Your task to perform on an android device: manage bookmarks in the chrome app Image 0: 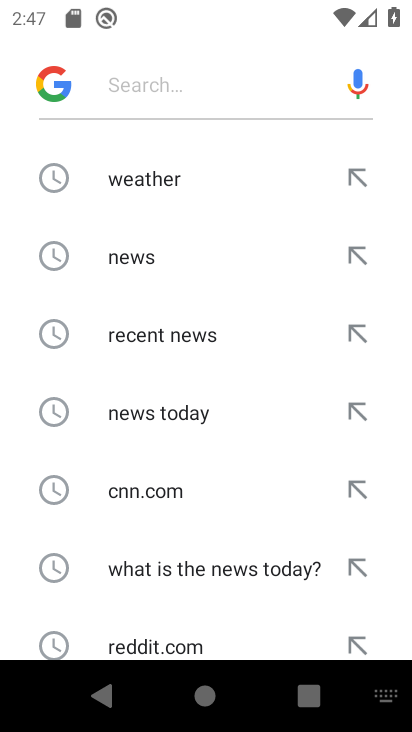
Step 0: press home button
Your task to perform on an android device: manage bookmarks in the chrome app Image 1: 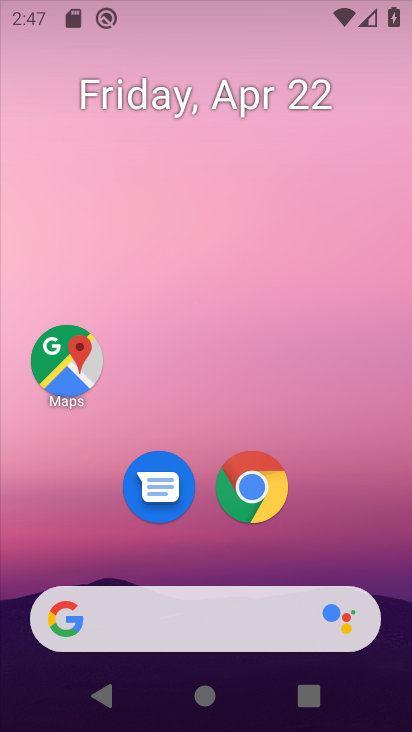
Step 1: click (278, 495)
Your task to perform on an android device: manage bookmarks in the chrome app Image 2: 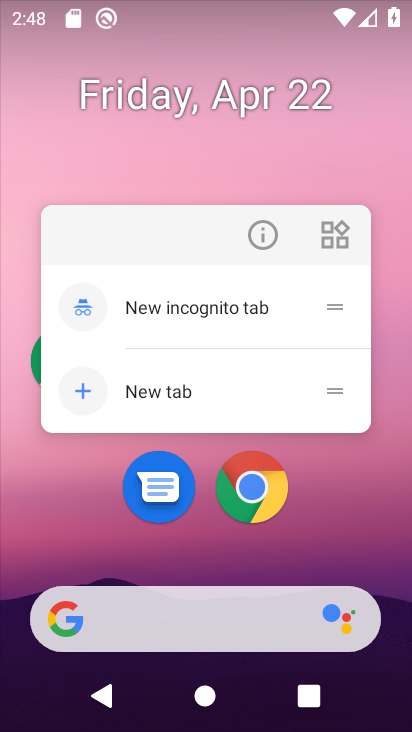
Step 2: click (268, 238)
Your task to perform on an android device: manage bookmarks in the chrome app Image 3: 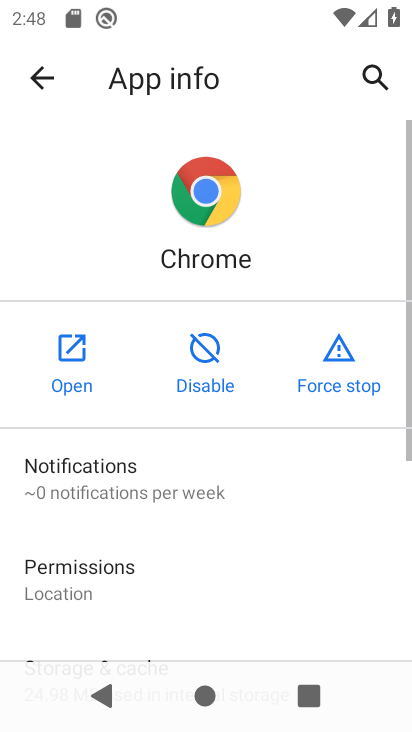
Step 3: click (68, 364)
Your task to perform on an android device: manage bookmarks in the chrome app Image 4: 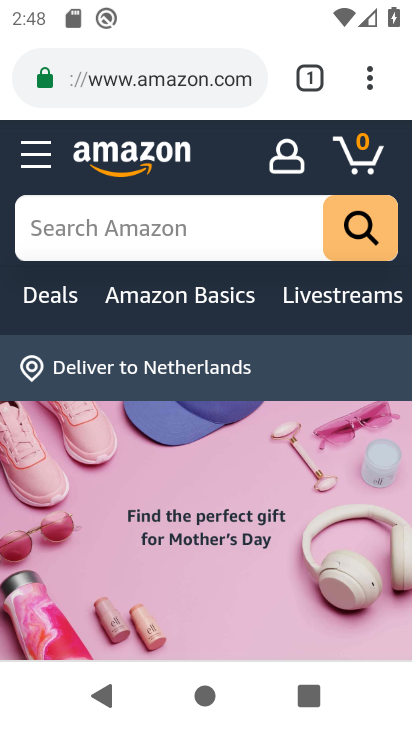
Step 4: click (365, 81)
Your task to perform on an android device: manage bookmarks in the chrome app Image 5: 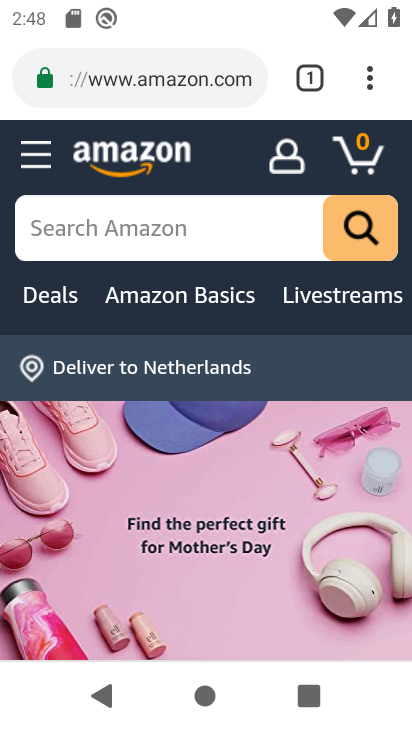
Step 5: click (371, 87)
Your task to perform on an android device: manage bookmarks in the chrome app Image 6: 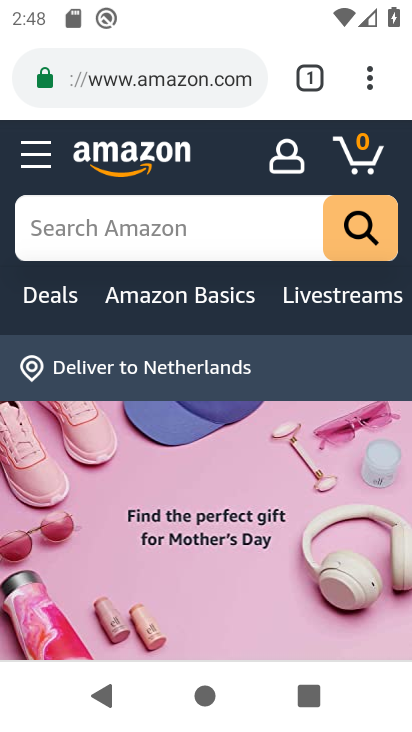
Step 6: click (372, 80)
Your task to perform on an android device: manage bookmarks in the chrome app Image 7: 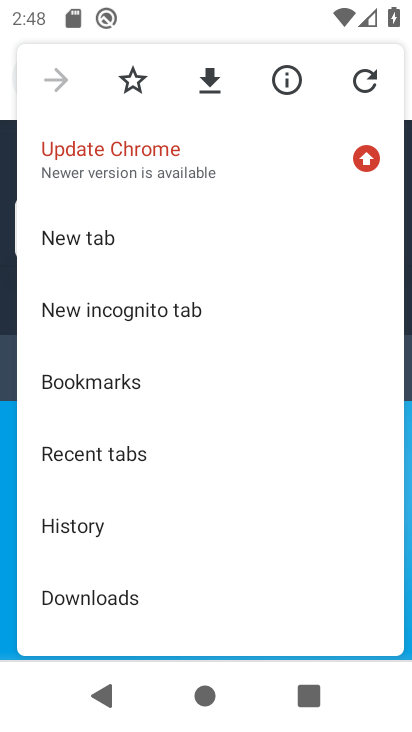
Step 7: click (124, 396)
Your task to perform on an android device: manage bookmarks in the chrome app Image 8: 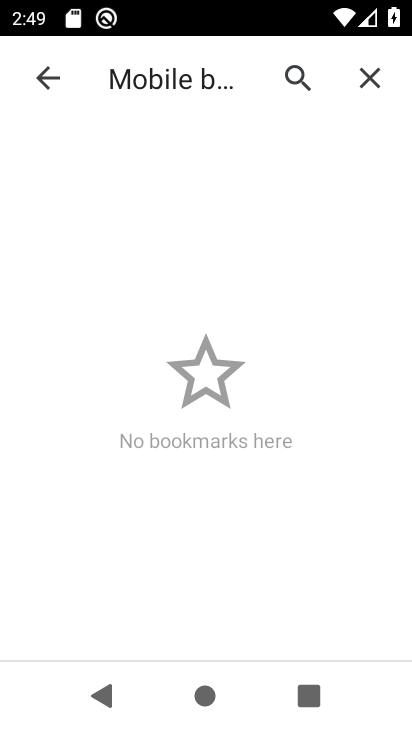
Step 8: task complete